Your task to perform on an android device: Go to wifi settings Image 0: 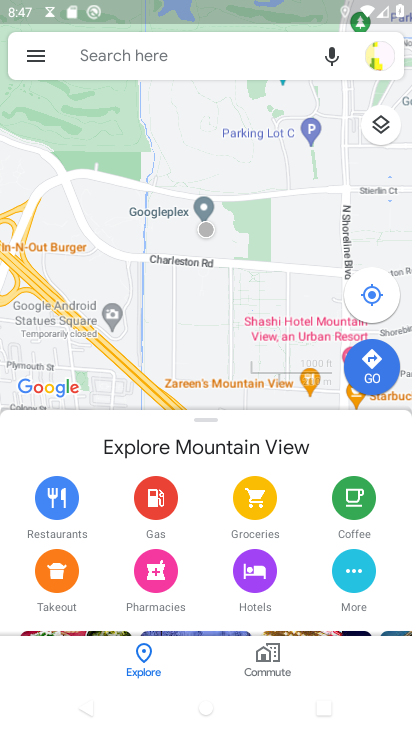
Step 0: press home button
Your task to perform on an android device: Go to wifi settings Image 1: 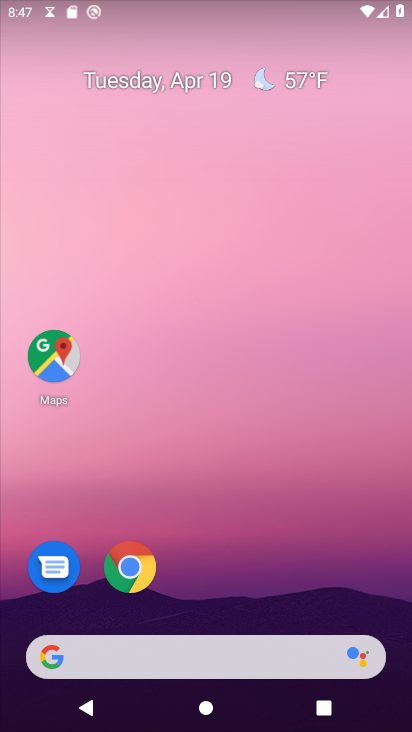
Step 1: drag from (331, 542) to (374, 0)
Your task to perform on an android device: Go to wifi settings Image 2: 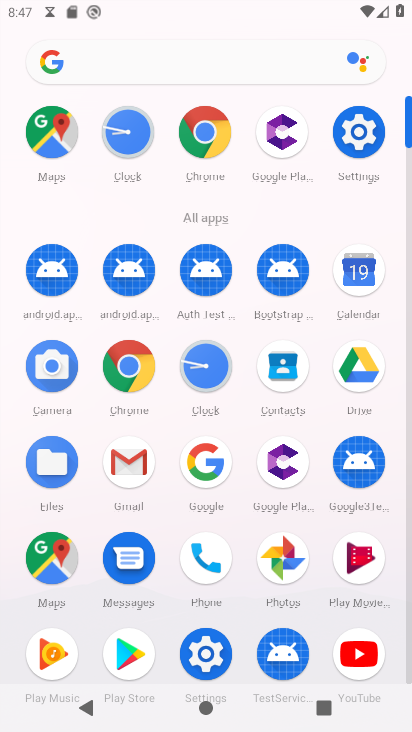
Step 2: click (341, 127)
Your task to perform on an android device: Go to wifi settings Image 3: 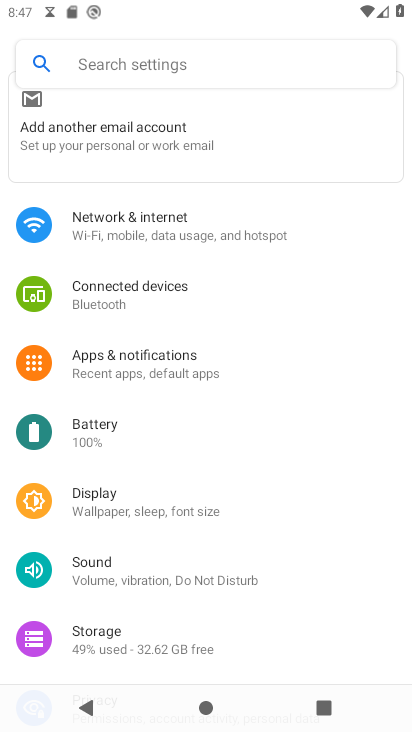
Step 3: click (185, 227)
Your task to perform on an android device: Go to wifi settings Image 4: 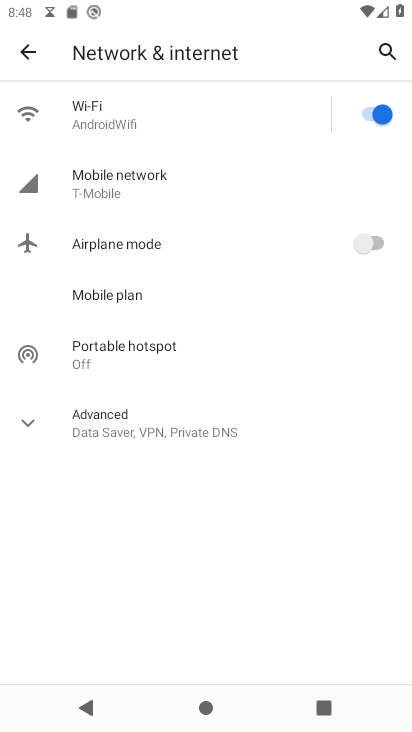
Step 4: click (144, 118)
Your task to perform on an android device: Go to wifi settings Image 5: 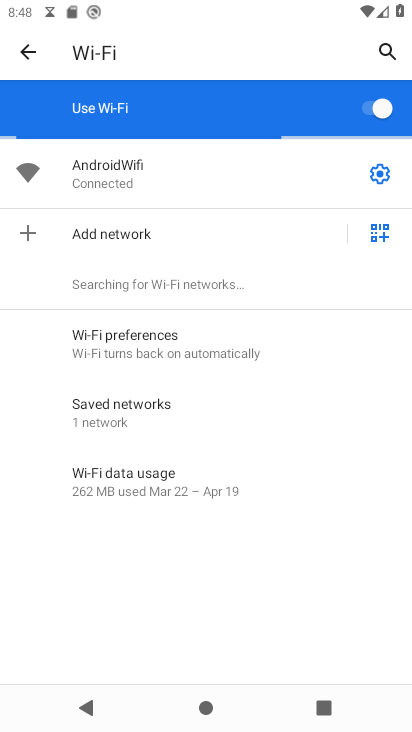
Step 5: task complete